Your task to perform on an android device: open app "Chime – Mobile Banking" (install if not already installed) and go to login screen Image 0: 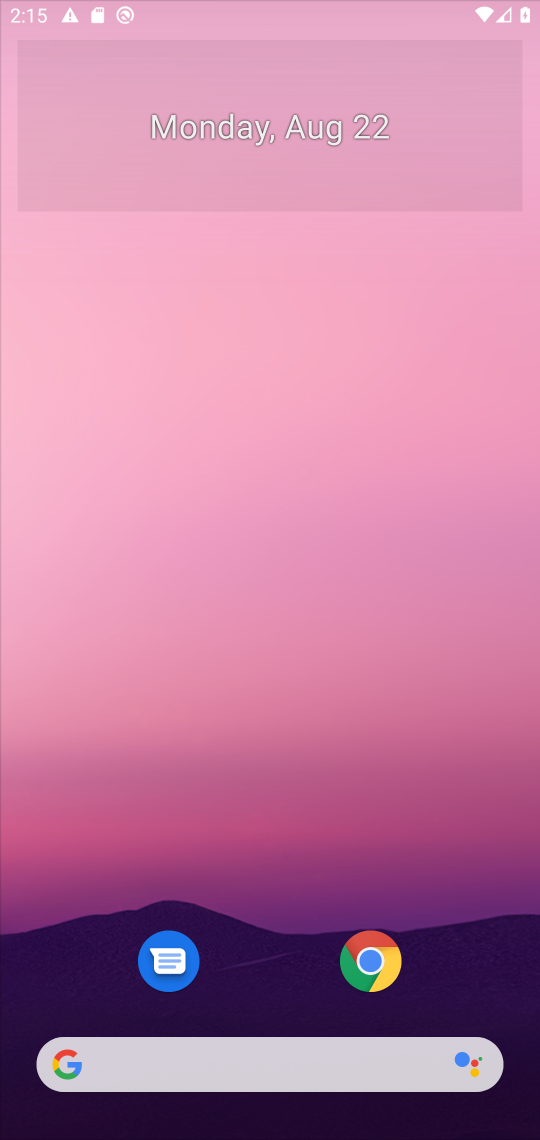
Step 0: press home button
Your task to perform on an android device: open app "Chime – Mobile Banking" (install if not already installed) and go to login screen Image 1: 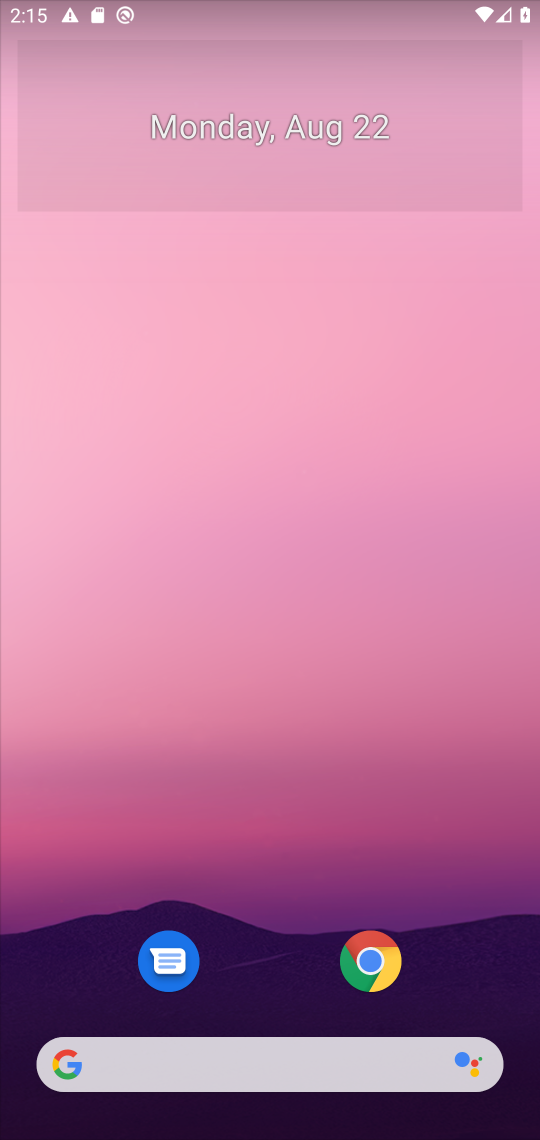
Step 1: drag from (464, 959) to (484, 151)
Your task to perform on an android device: open app "Chime – Mobile Banking" (install if not already installed) and go to login screen Image 2: 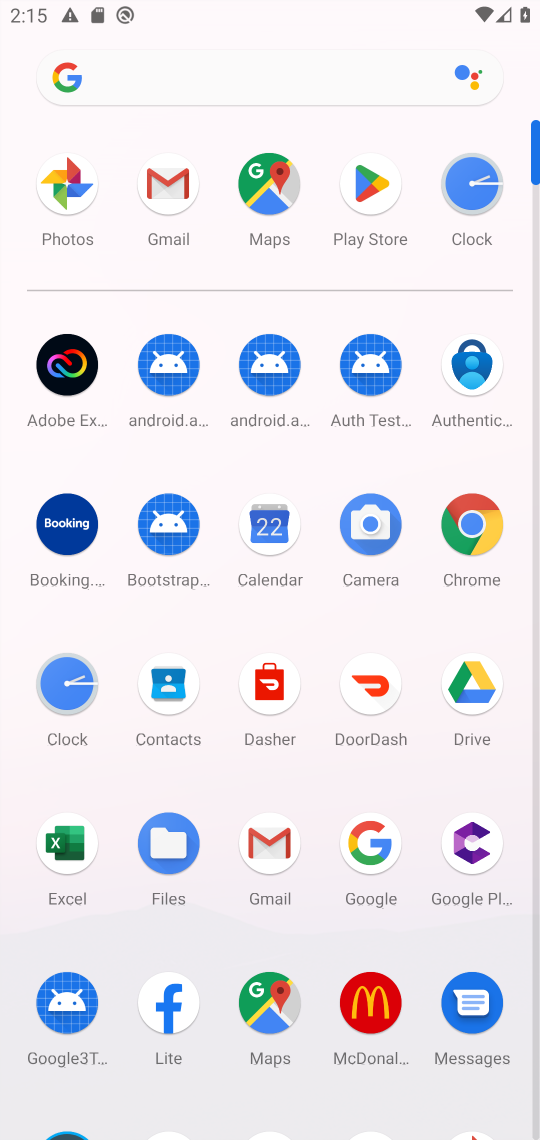
Step 2: click (369, 182)
Your task to perform on an android device: open app "Chime – Mobile Banking" (install if not already installed) and go to login screen Image 3: 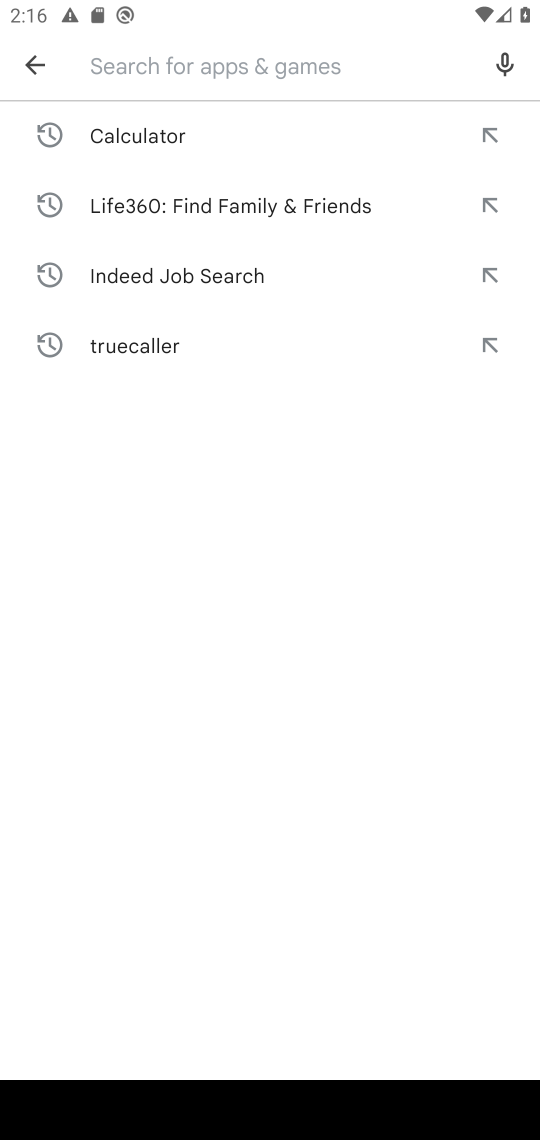
Step 3: type "Chime – Mobile Banking"
Your task to perform on an android device: open app "Chime – Mobile Banking" (install if not already installed) and go to login screen Image 4: 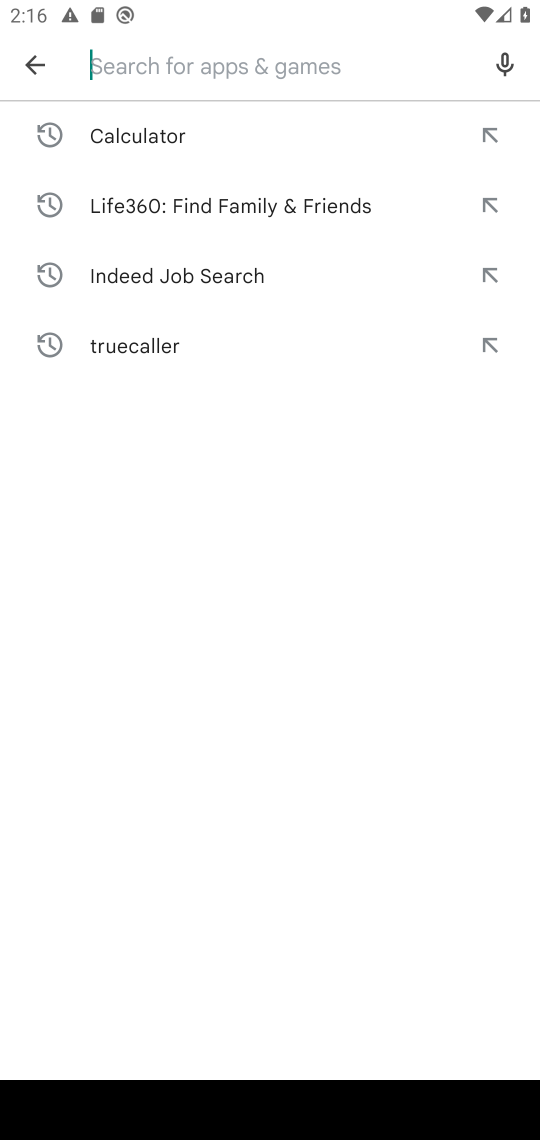
Step 4: press enter
Your task to perform on an android device: open app "Chime – Mobile Banking" (install if not already installed) and go to login screen Image 5: 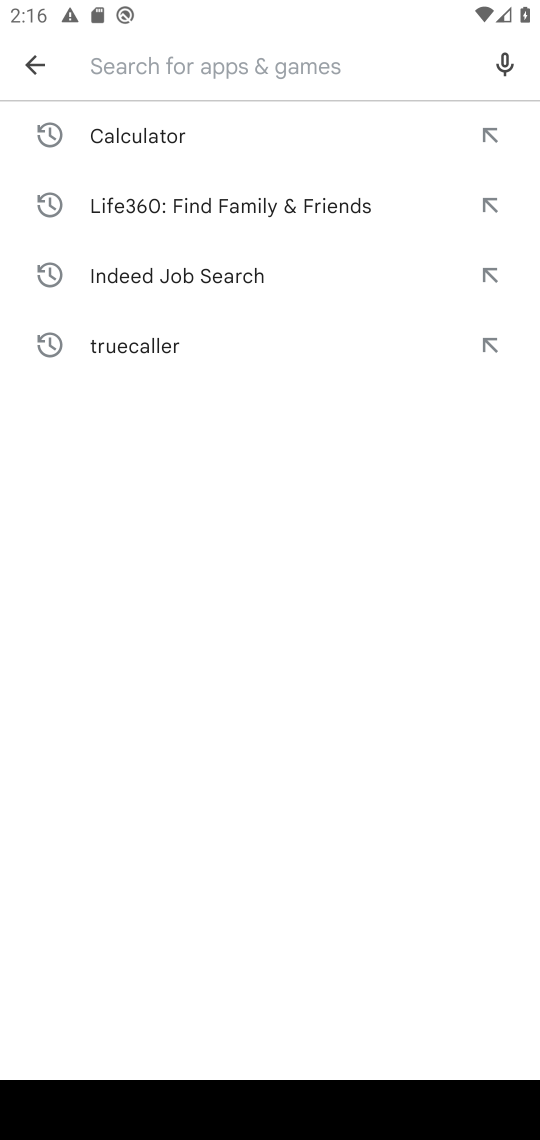
Step 5: task complete